Your task to perform on an android device: Add sony triple a to the cart on walmart, then select checkout. Image 0: 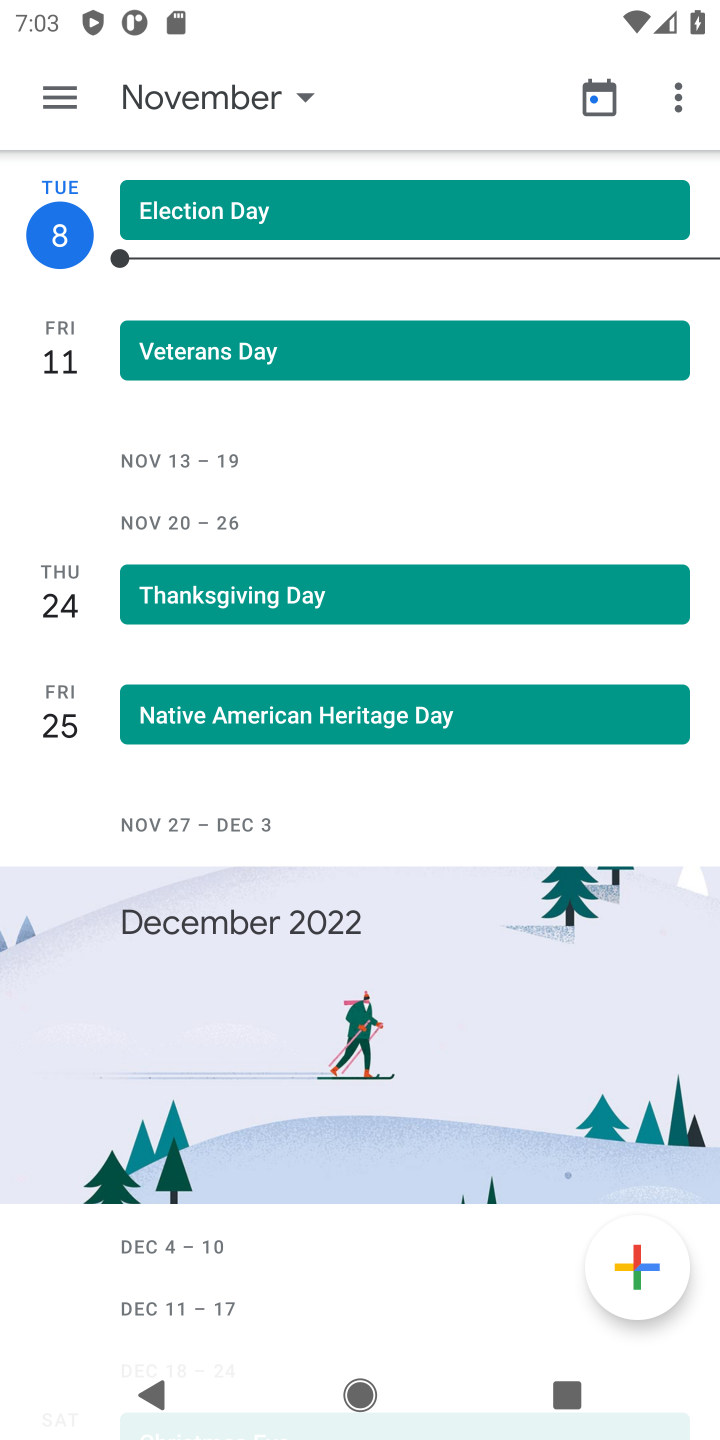
Step 0: press home button
Your task to perform on an android device: Add sony triple a to the cart on walmart, then select checkout. Image 1: 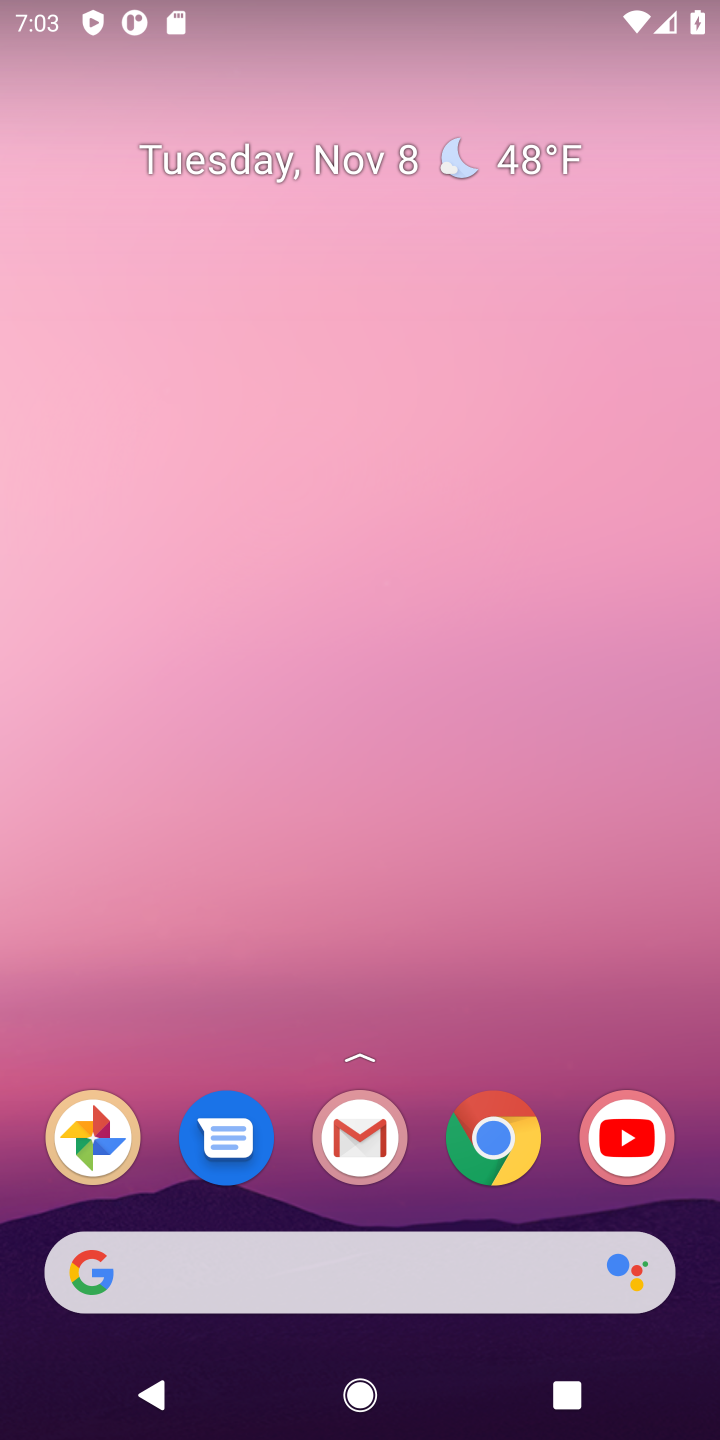
Step 1: click (494, 1116)
Your task to perform on an android device: Add sony triple a to the cart on walmart, then select checkout. Image 2: 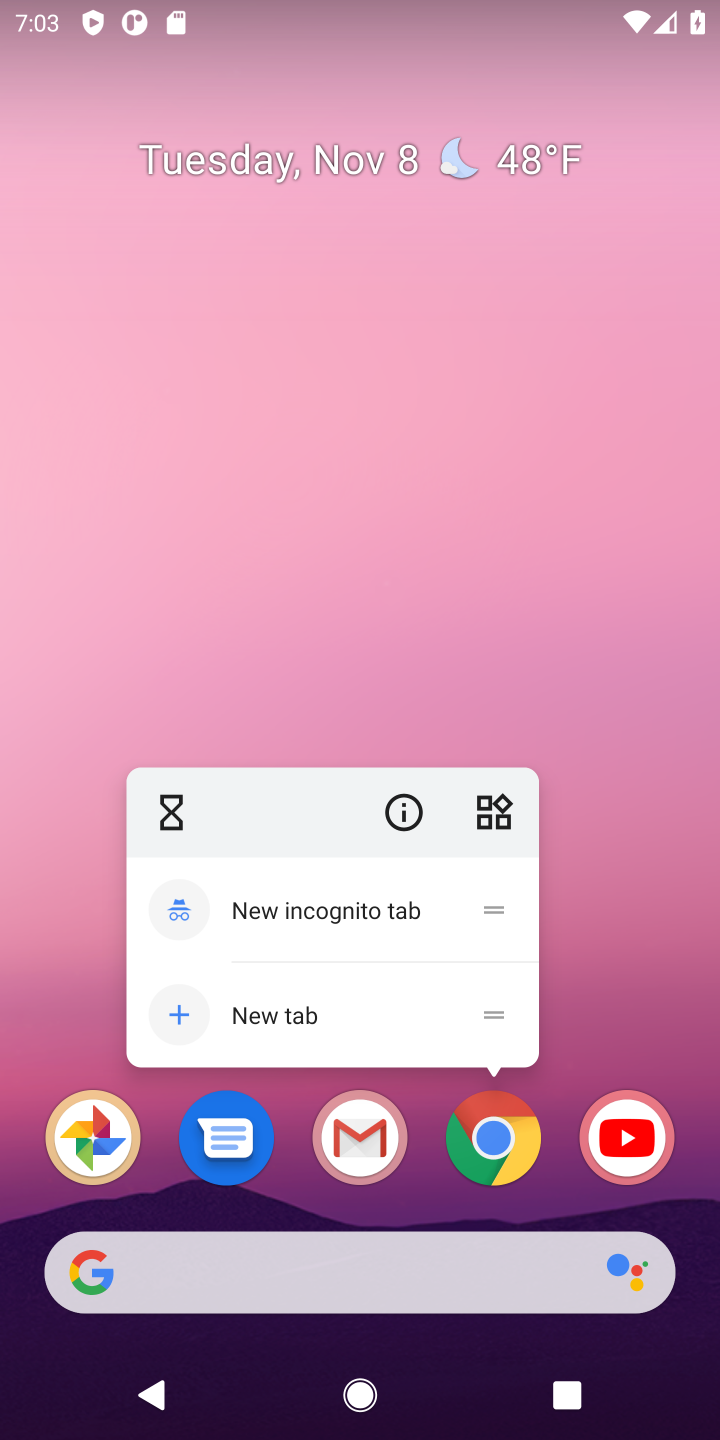
Step 2: click (494, 1106)
Your task to perform on an android device: Add sony triple a to the cart on walmart, then select checkout. Image 3: 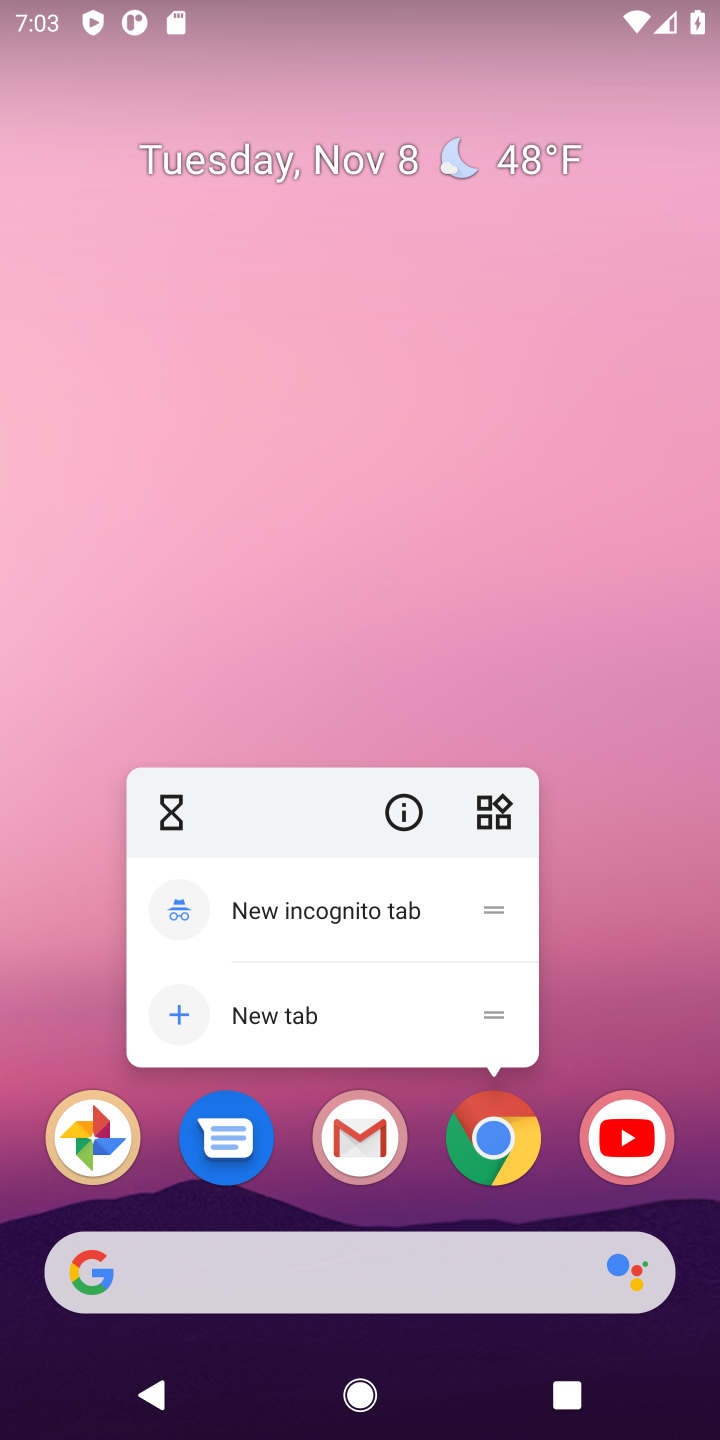
Step 3: click (490, 1128)
Your task to perform on an android device: Add sony triple a to the cart on walmart, then select checkout. Image 4: 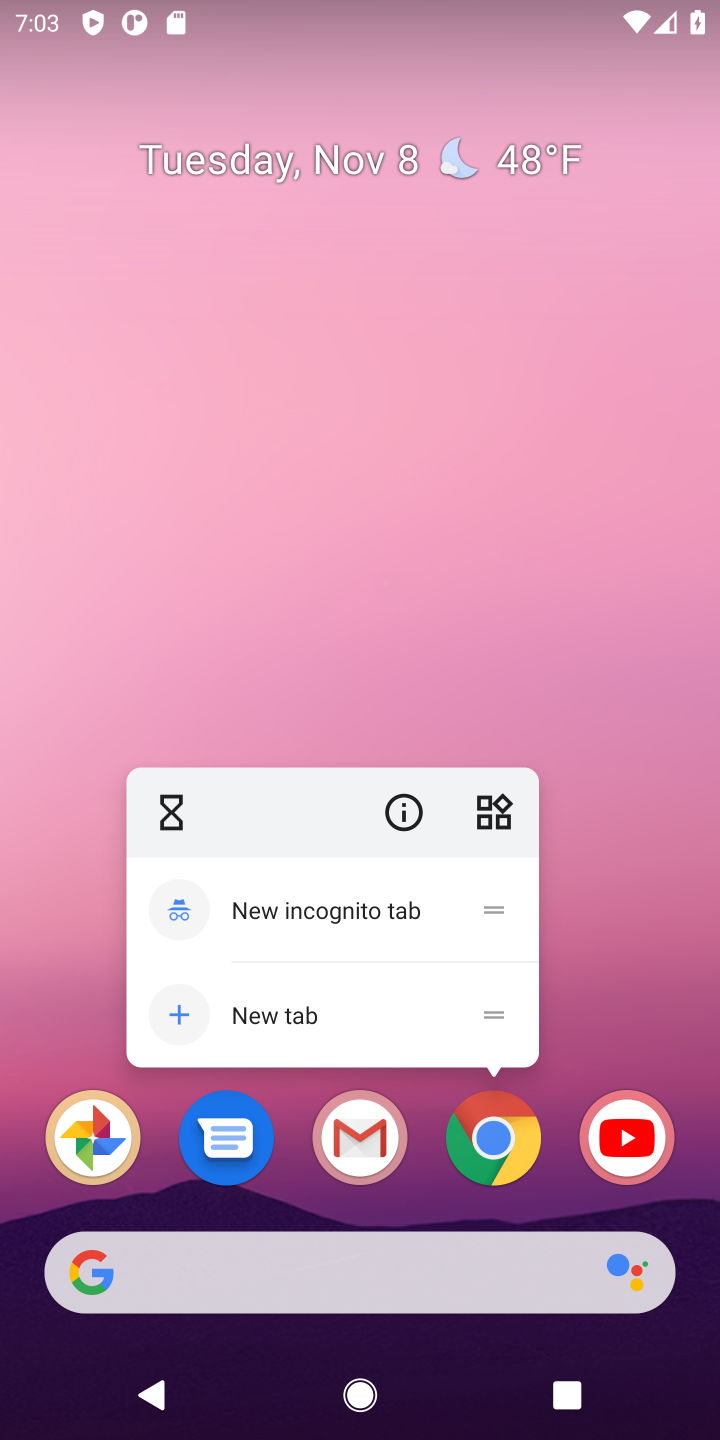
Step 4: click (490, 1137)
Your task to perform on an android device: Add sony triple a to the cart on walmart, then select checkout. Image 5: 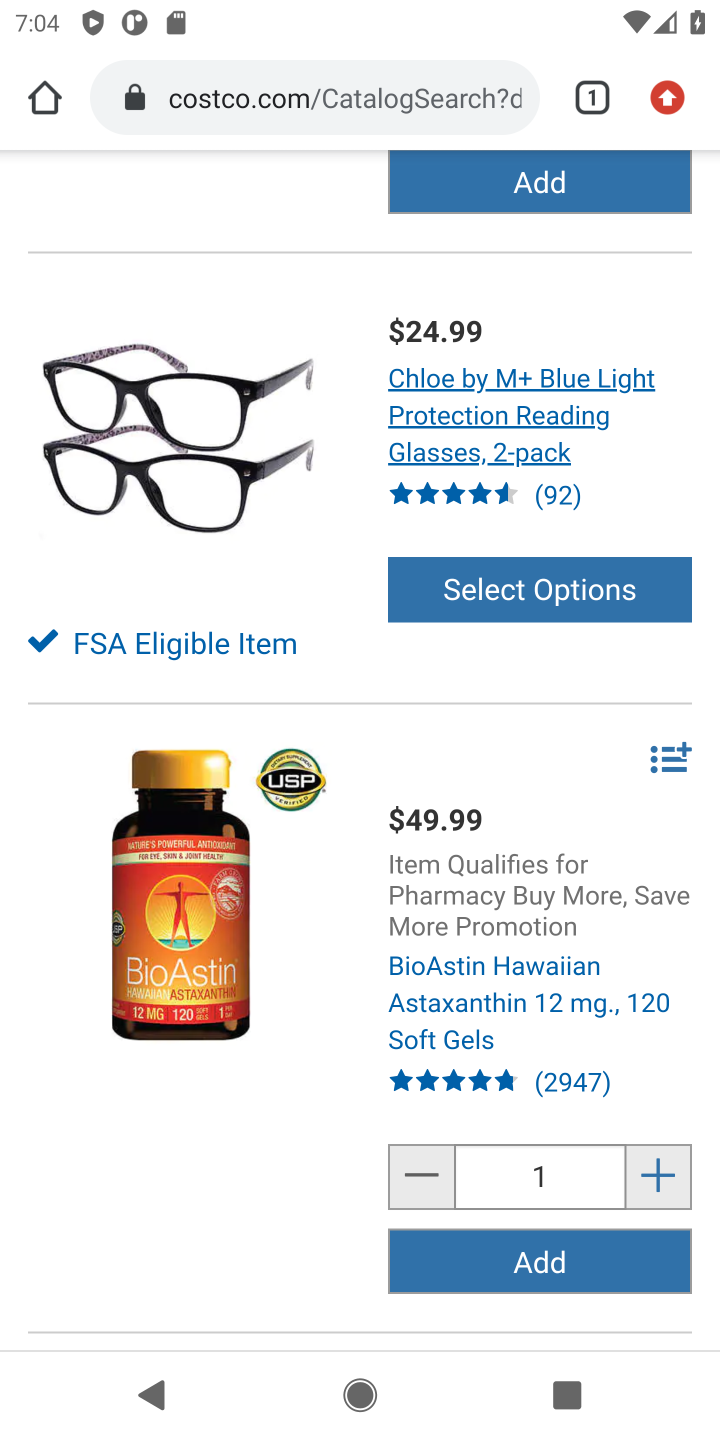
Step 5: click (351, 102)
Your task to perform on an android device: Add sony triple a to the cart on walmart, then select checkout. Image 6: 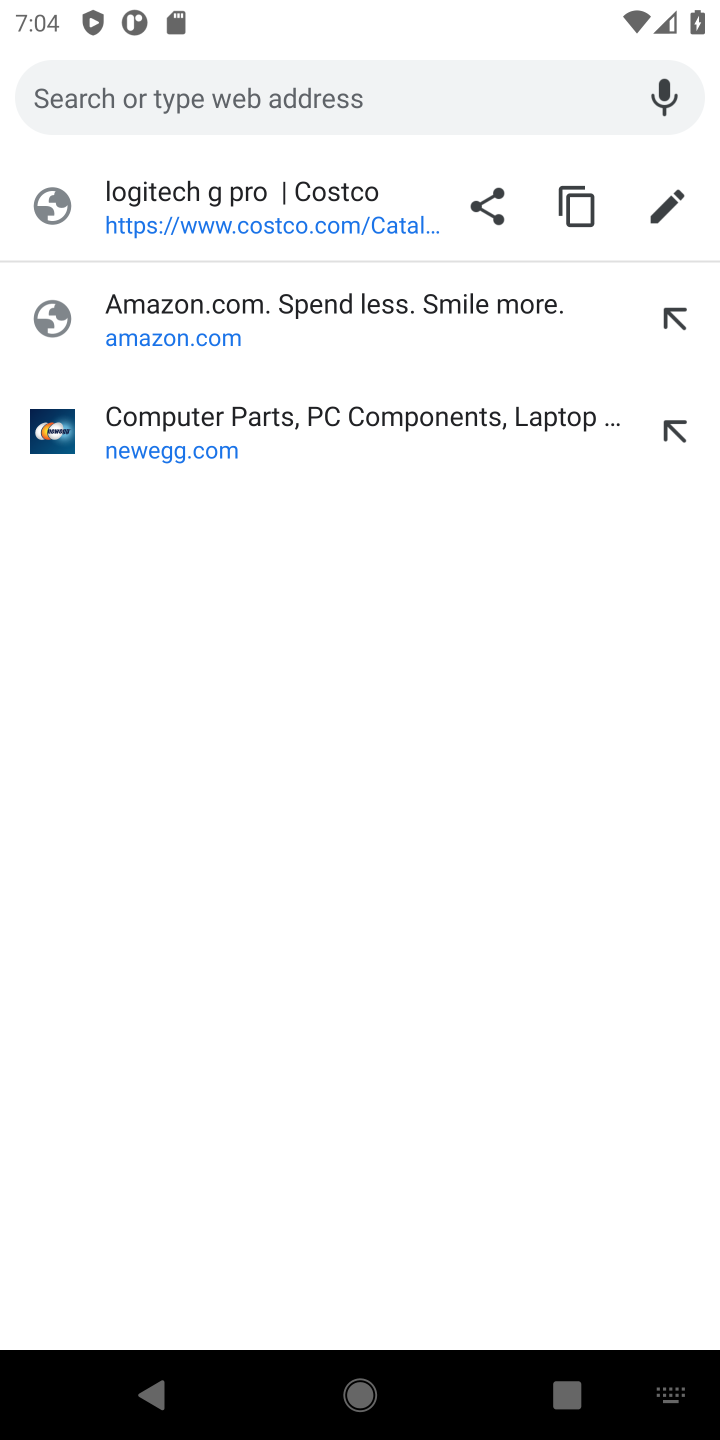
Step 6: type " walmart"
Your task to perform on an android device: Add sony triple a to the cart on walmart, then select checkout. Image 7: 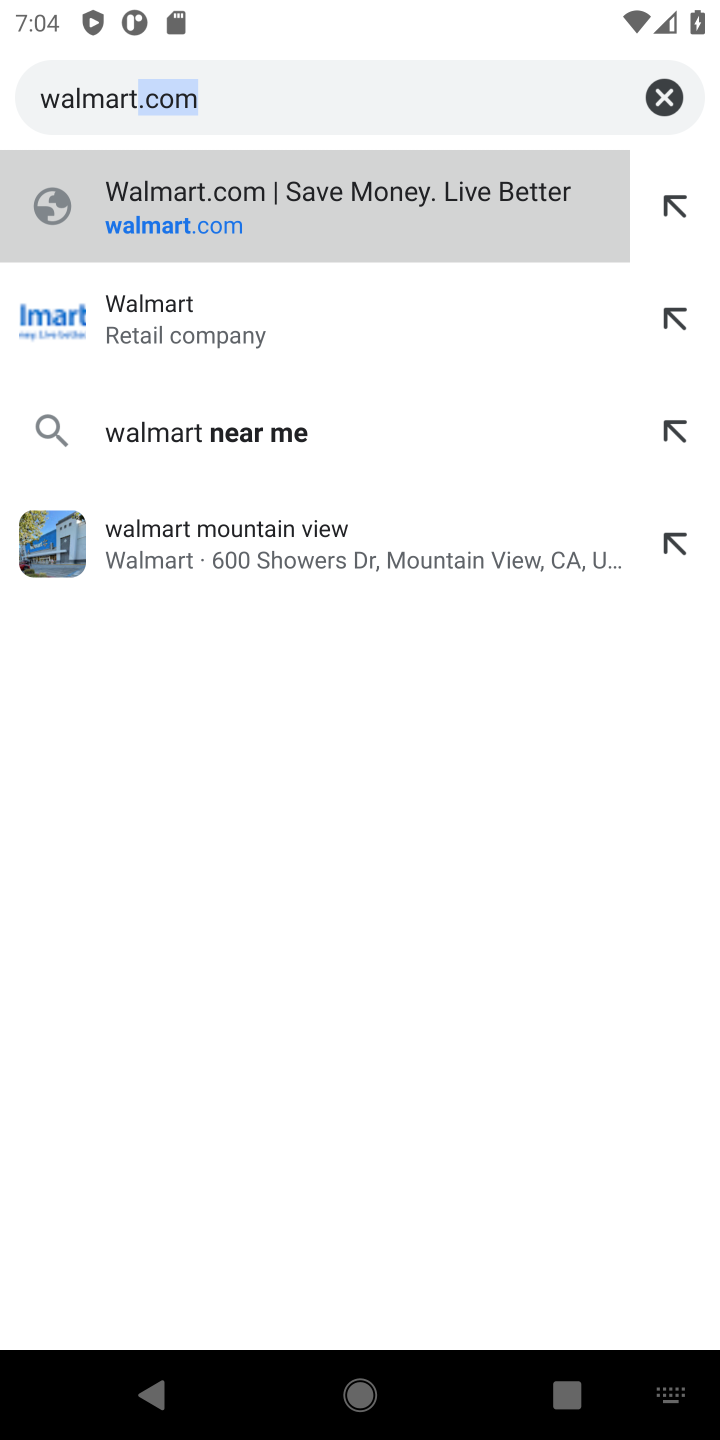
Step 7: press enter
Your task to perform on an android device: Add sony triple a to the cart on walmart, then select checkout. Image 8: 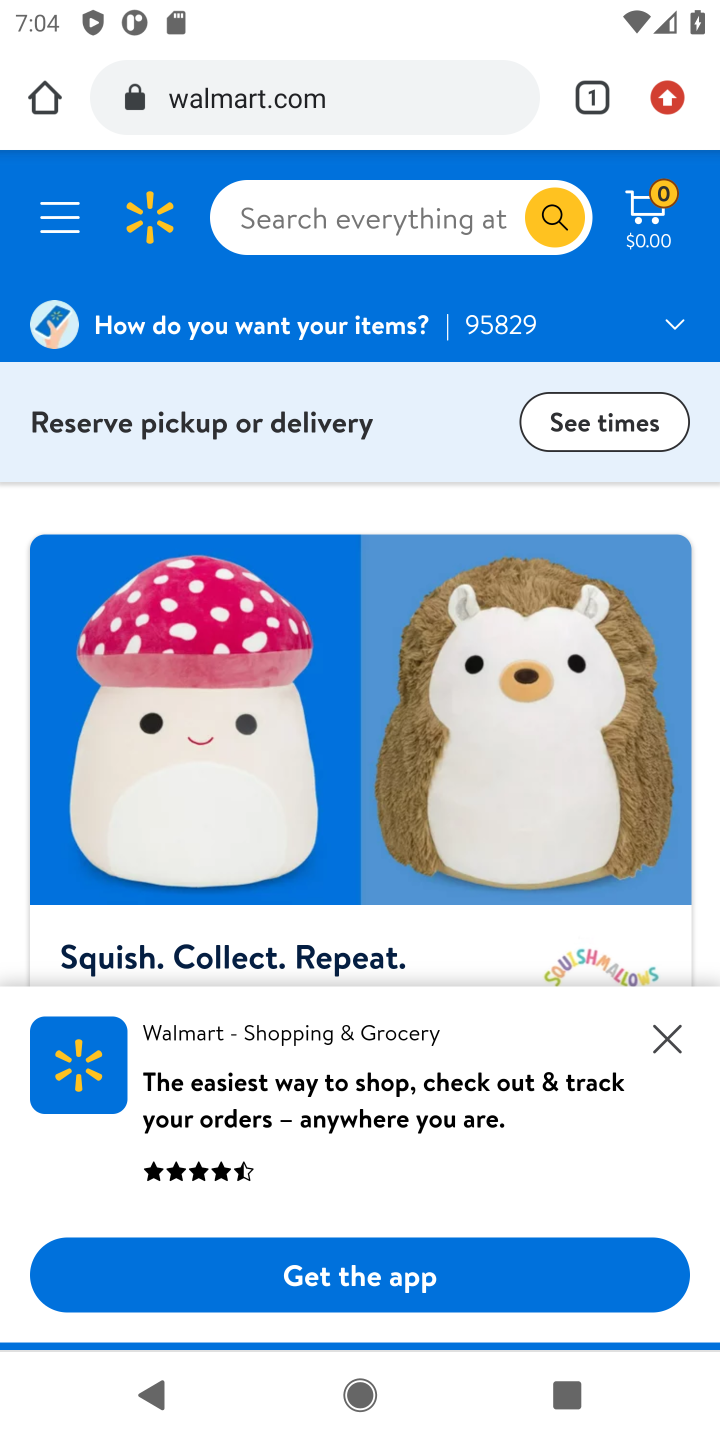
Step 8: click (390, 230)
Your task to perform on an android device: Add sony triple a to the cart on walmart, then select checkout. Image 9: 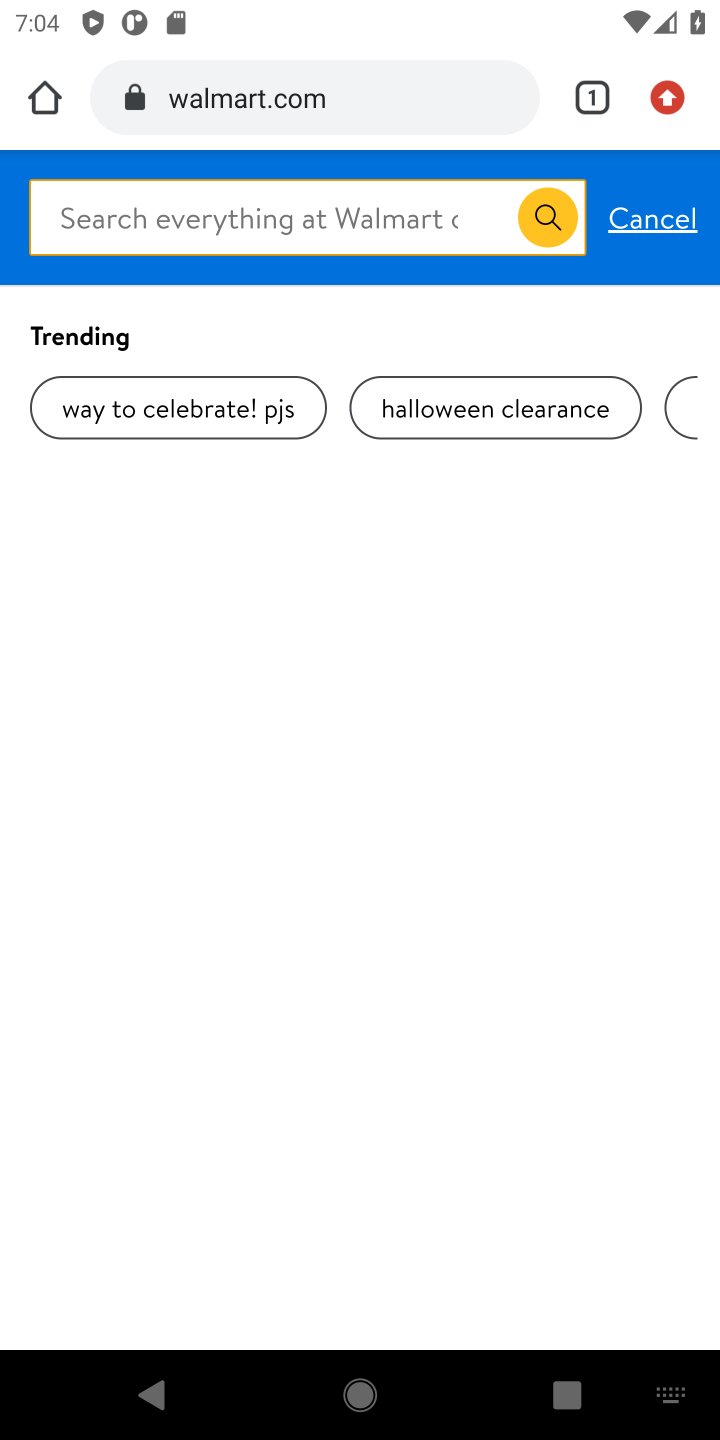
Step 9: press enter
Your task to perform on an android device: Add sony triple a to the cart on walmart, then select checkout. Image 10: 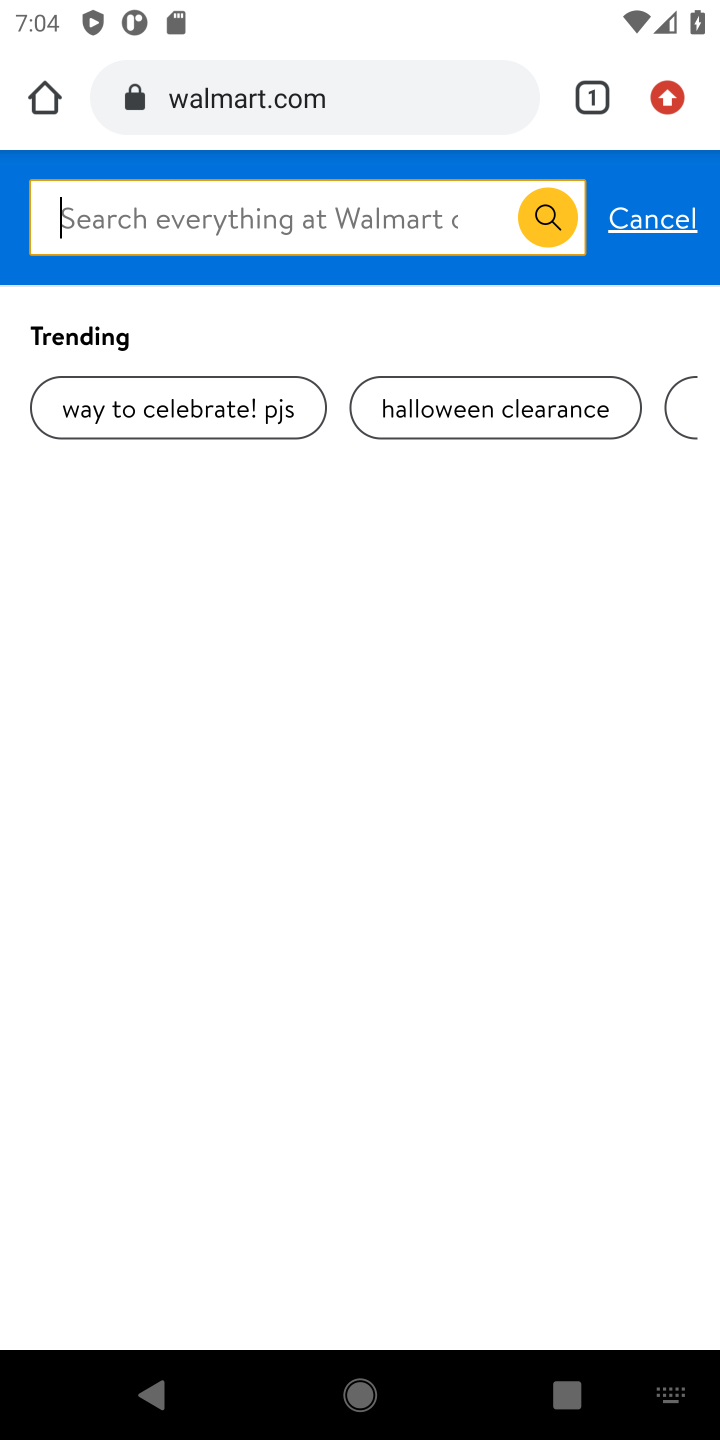
Step 10: type "sony triple a"
Your task to perform on an android device: Add sony triple a to the cart on walmart, then select checkout. Image 11: 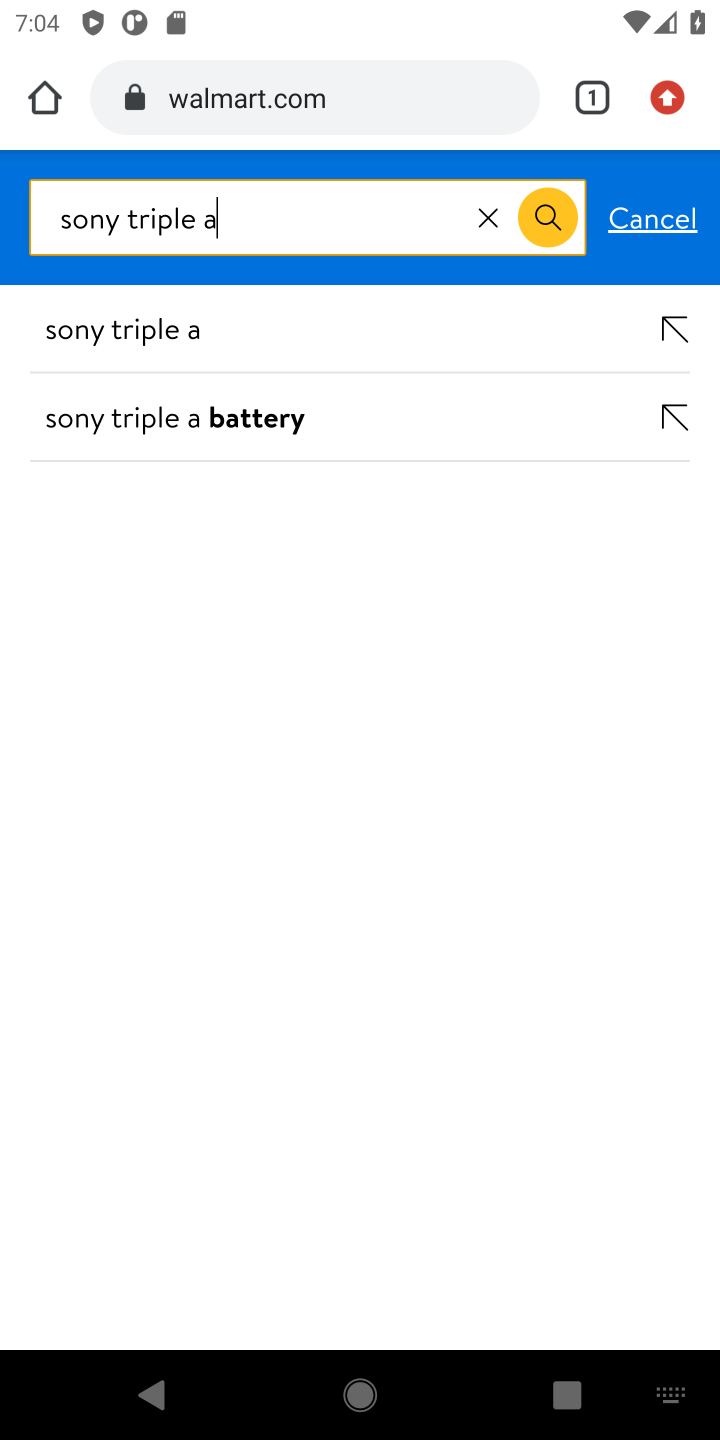
Step 11: click (153, 335)
Your task to perform on an android device: Add sony triple a to the cart on walmart, then select checkout. Image 12: 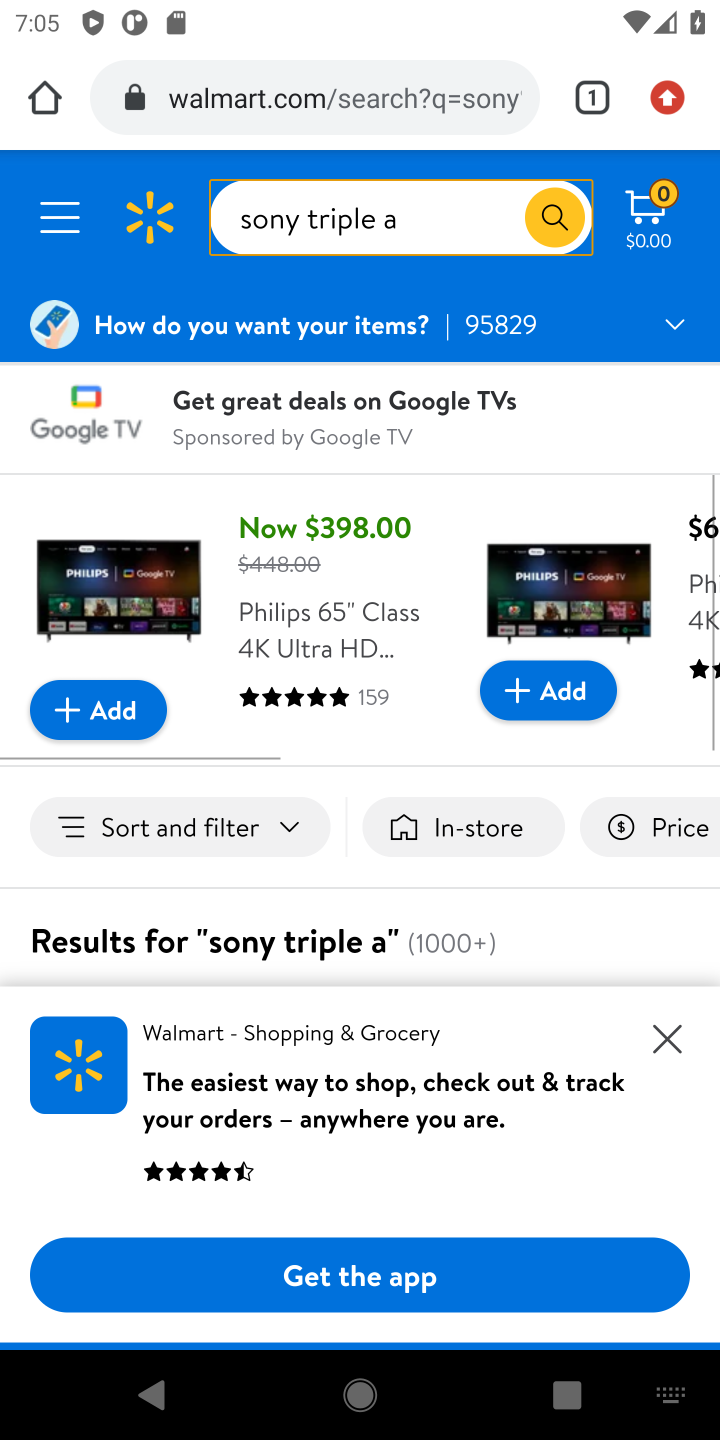
Step 12: click (672, 1035)
Your task to perform on an android device: Add sony triple a to the cart on walmart, then select checkout. Image 13: 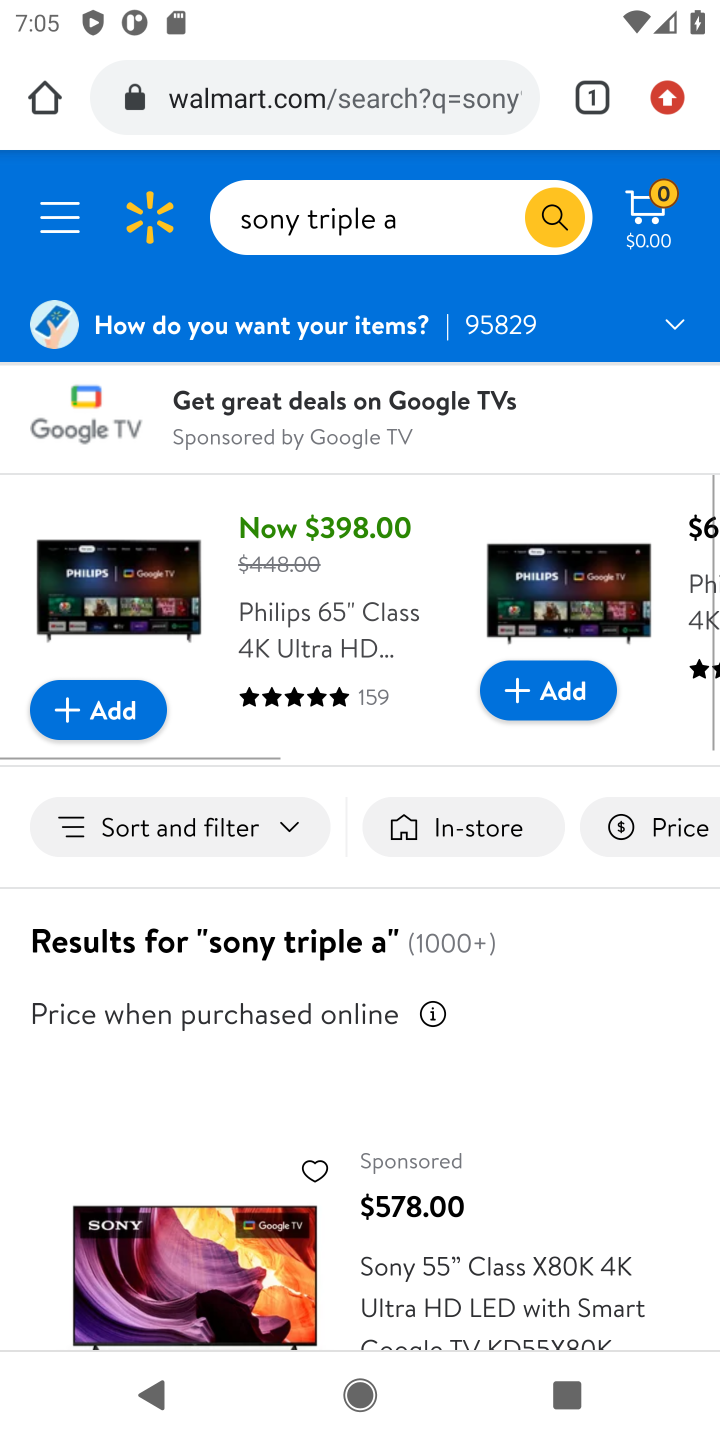
Step 13: task complete